Your task to perform on an android device: Is it going to rain this weekend? Image 0: 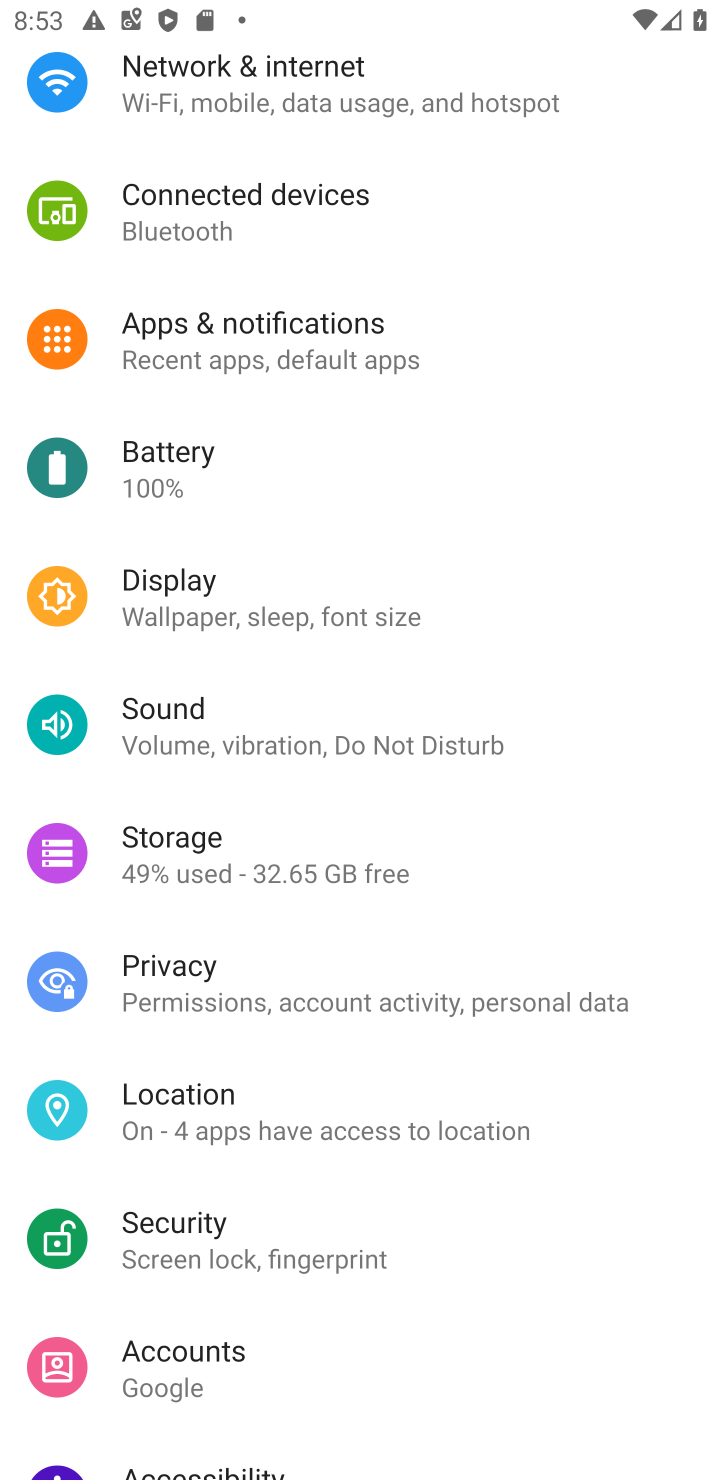
Step 0: press home button
Your task to perform on an android device: Is it going to rain this weekend? Image 1: 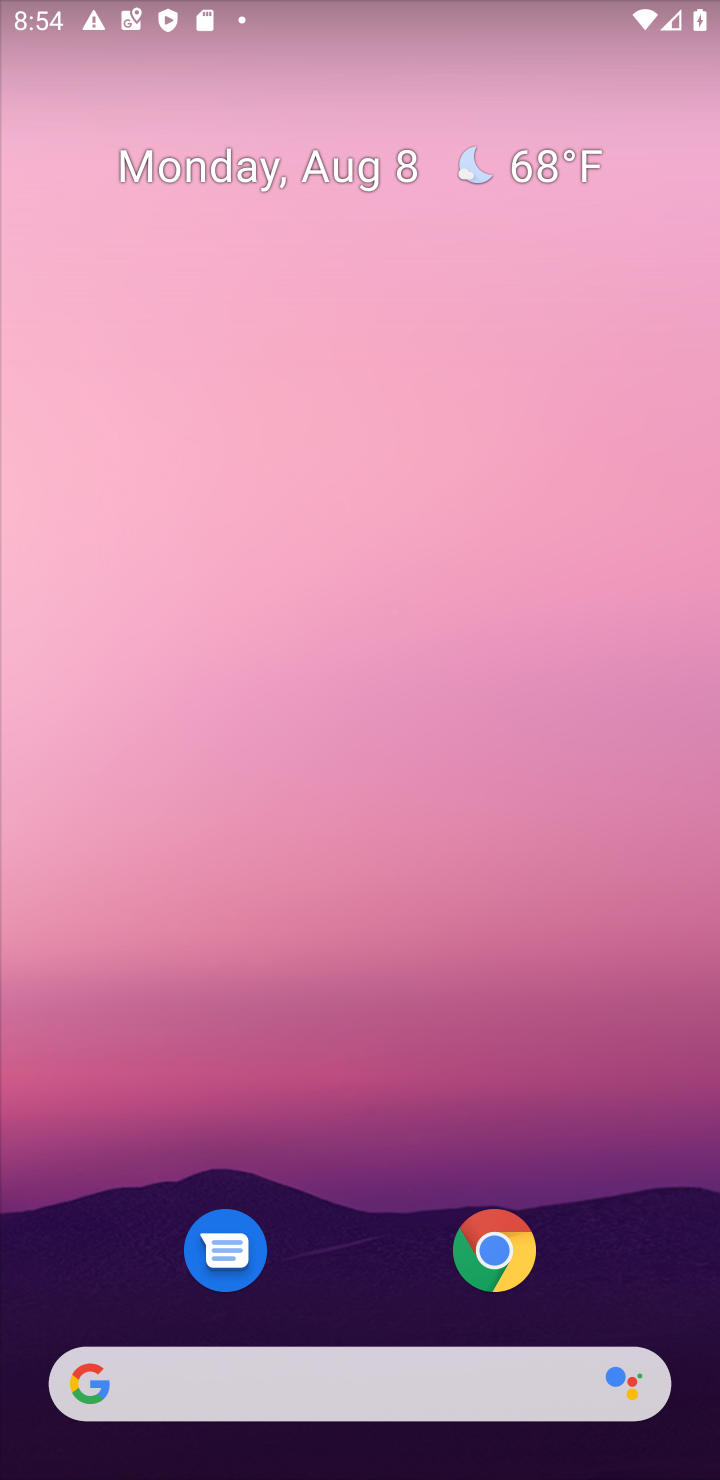
Step 1: click (372, 1390)
Your task to perform on an android device: Is it going to rain this weekend? Image 2: 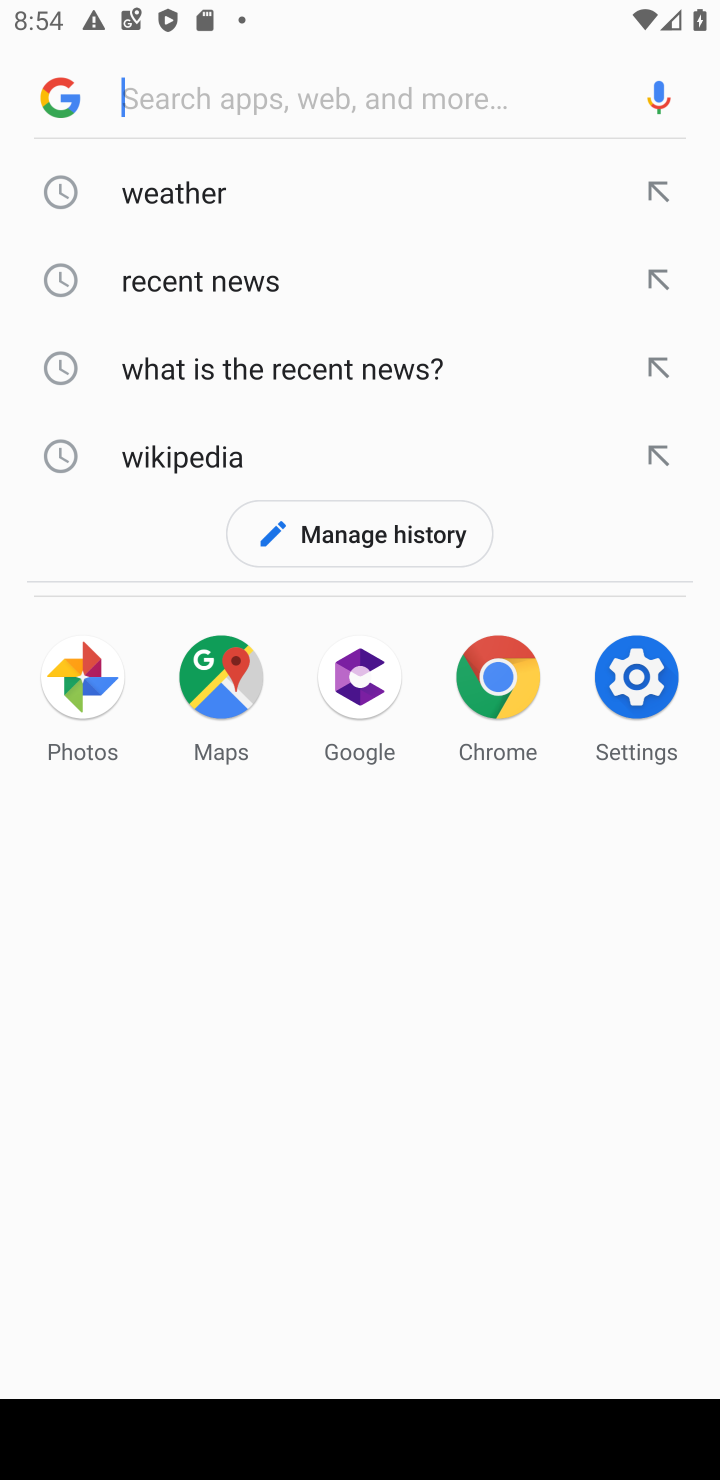
Step 2: click (209, 178)
Your task to perform on an android device: Is it going to rain this weekend? Image 3: 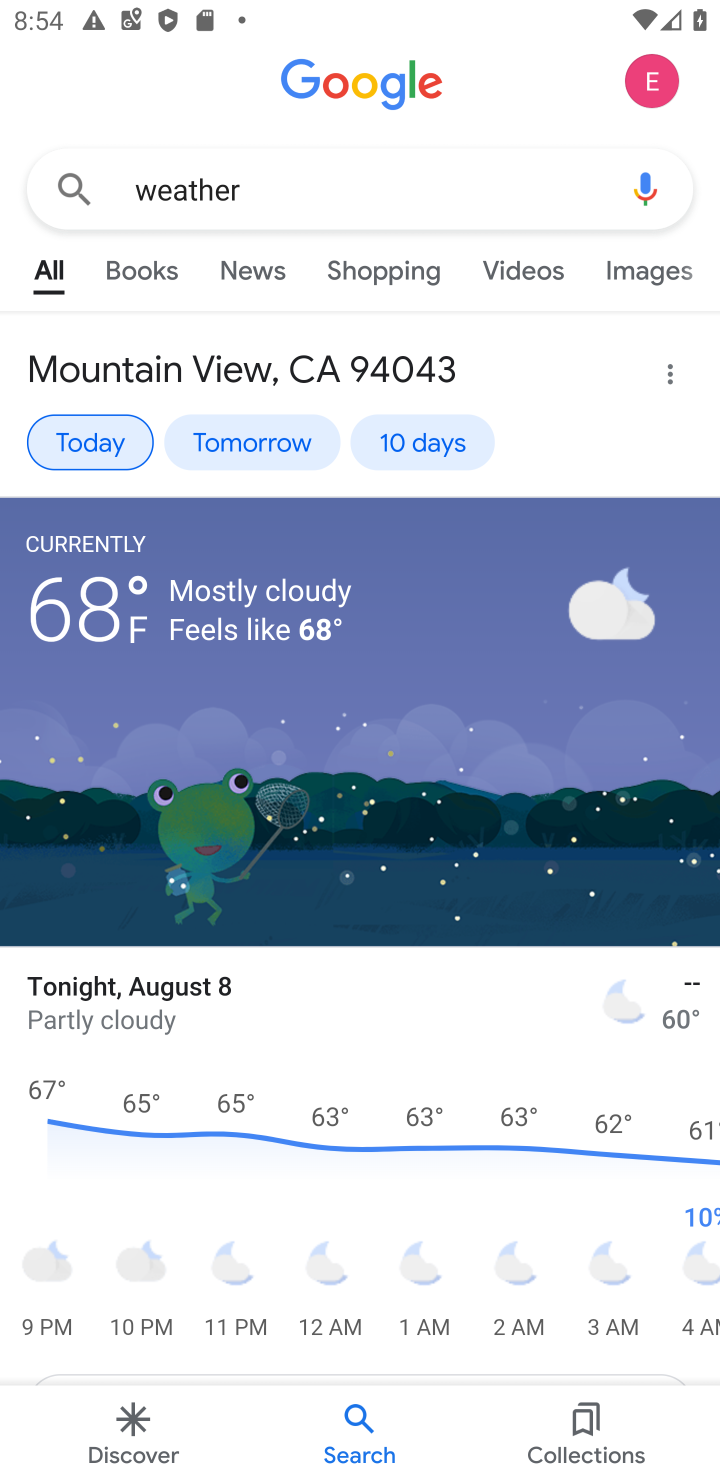
Step 3: click (276, 450)
Your task to perform on an android device: Is it going to rain this weekend? Image 4: 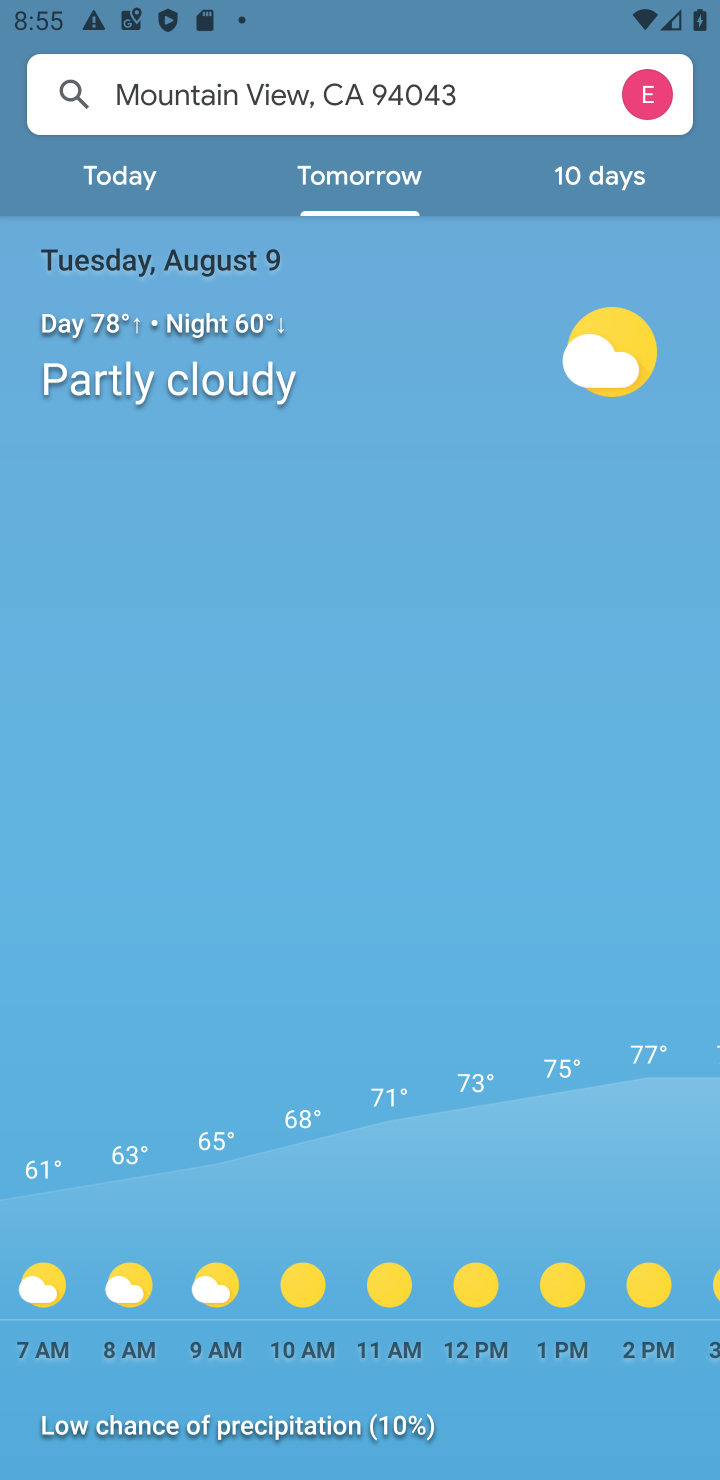
Step 4: click (554, 180)
Your task to perform on an android device: Is it going to rain this weekend? Image 5: 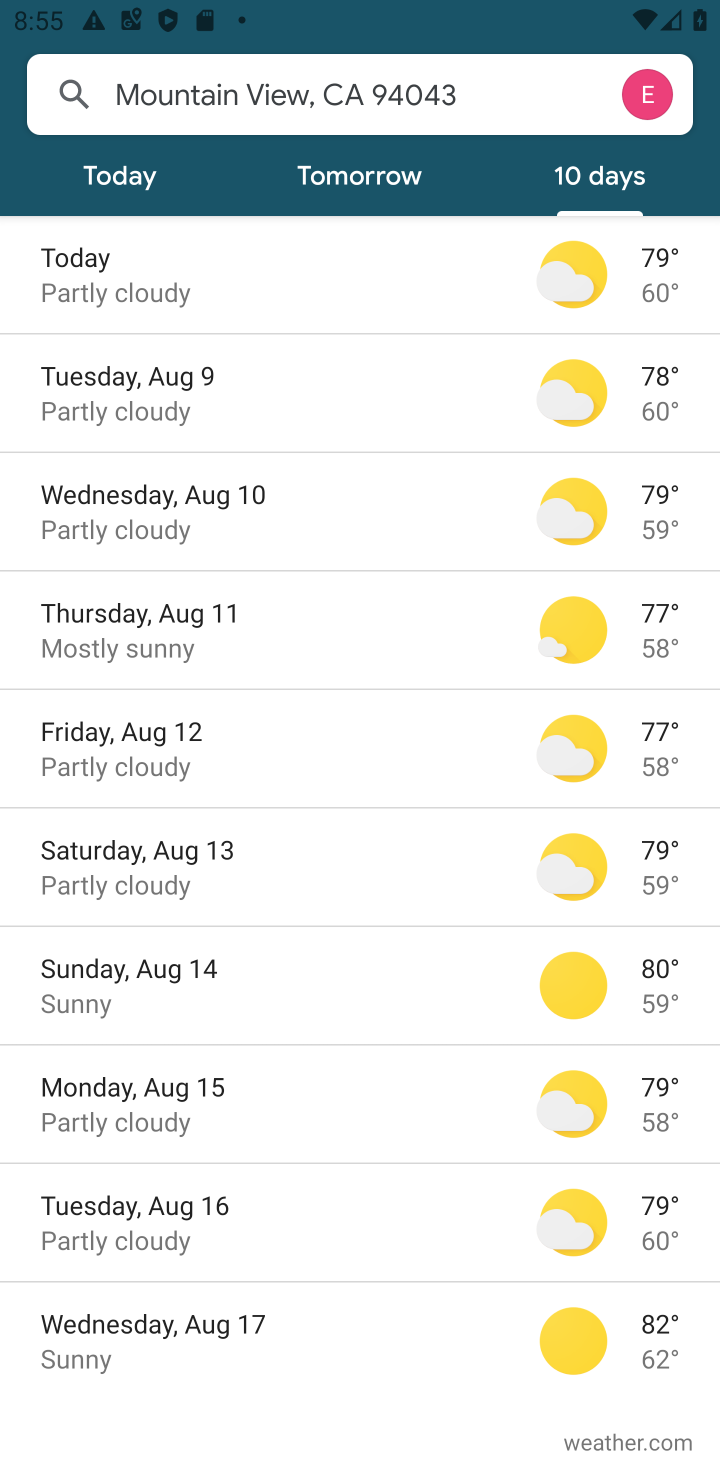
Step 5: click (107, 537)
Your task to perform on an android device: Is it going to rain this weekend? Image 6: 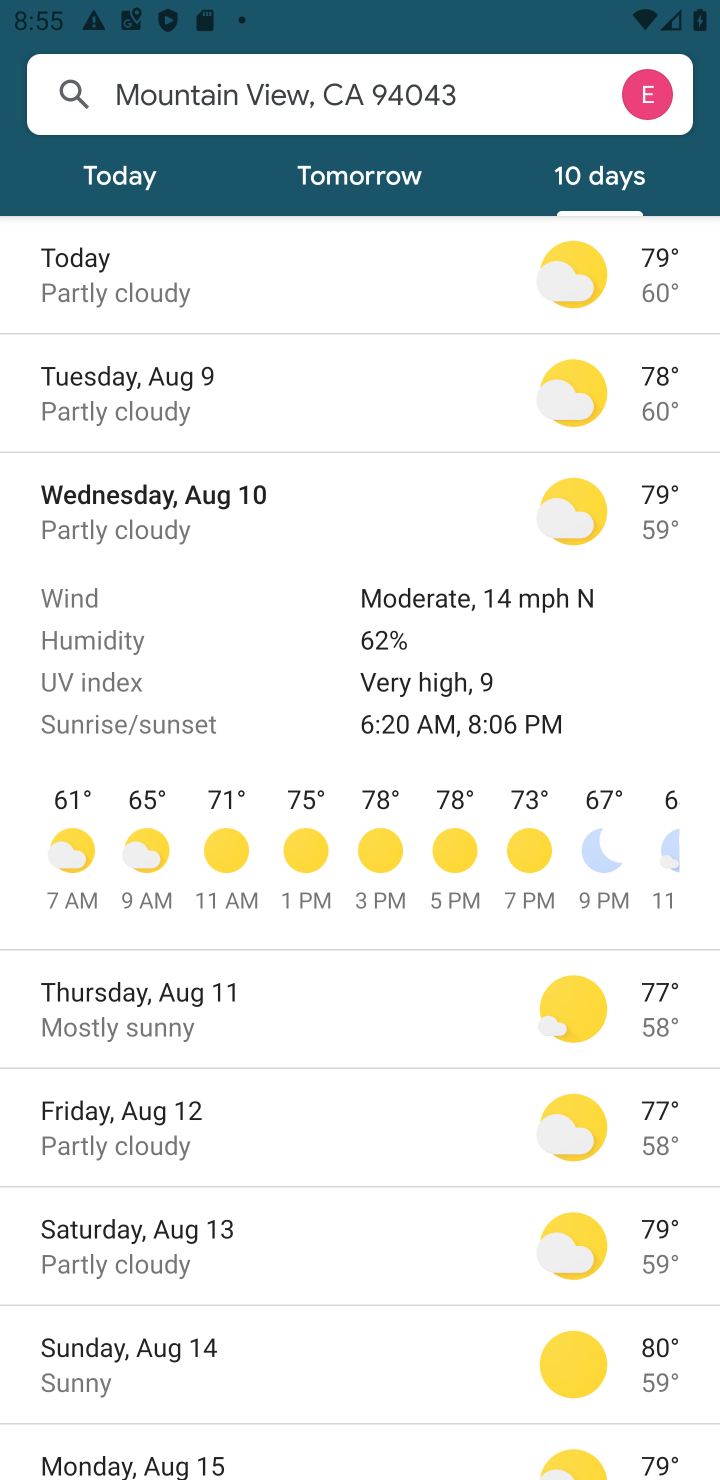
Step 6: click (218, 1211)
Your task to perform on an android device: Is it going to rain this weekend? Image 7: 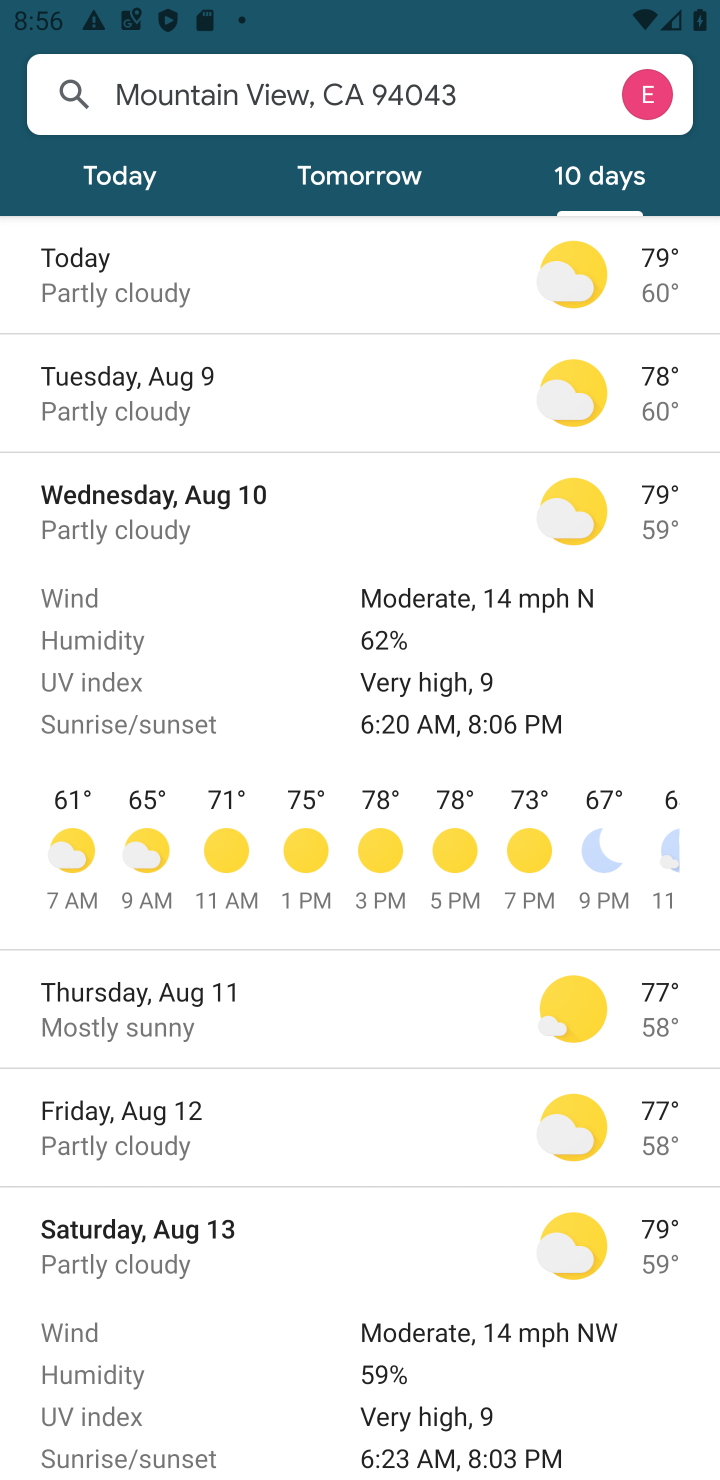
Step 7: task complete